Your task to perform on an android device: choose inbox layout in the gmail app Image 0: 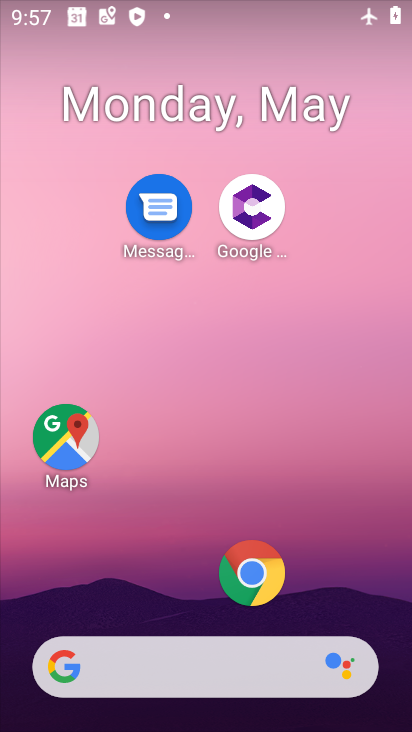
Step 0: drag from (173, 640) to (218, 69)
Your task to perform on an android device: choose inbox layout in the gmail app Image 1: 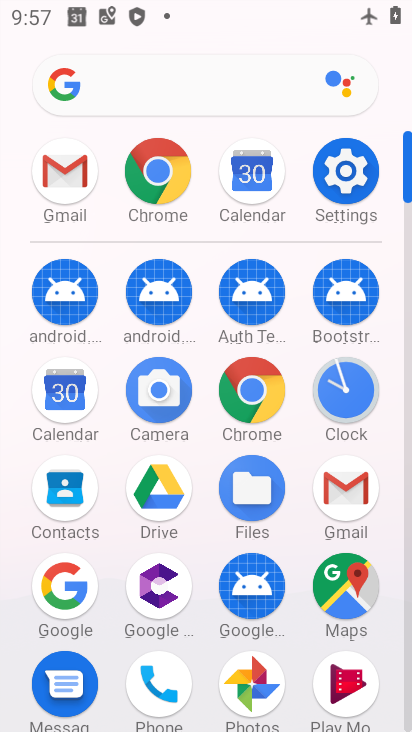
Step 1: click (347, 498)
Your task to perform on an android device: choose inbox layout in the gmail app Image 2: 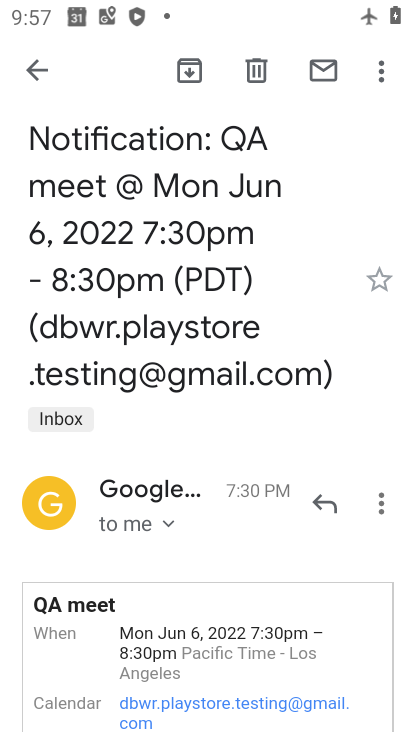
Step 2: task complete